Your task to perform on an android device: move a message to another label in the gmail app Image 0: 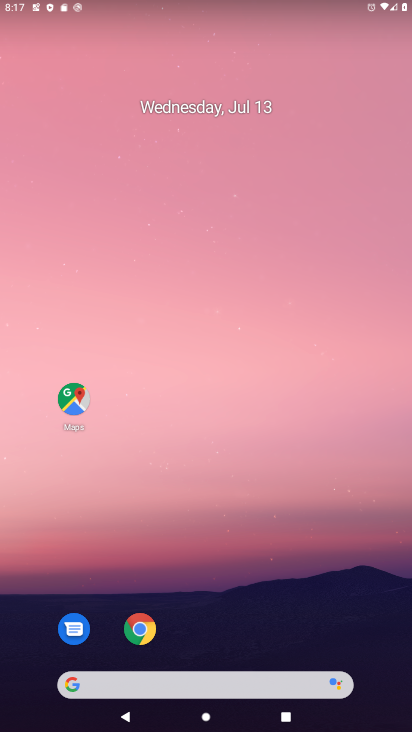
Step 0: drag from (218, 378) to (228, 84)
Your task to perform on an android device: move a message to another label in the gmail app Image 1: 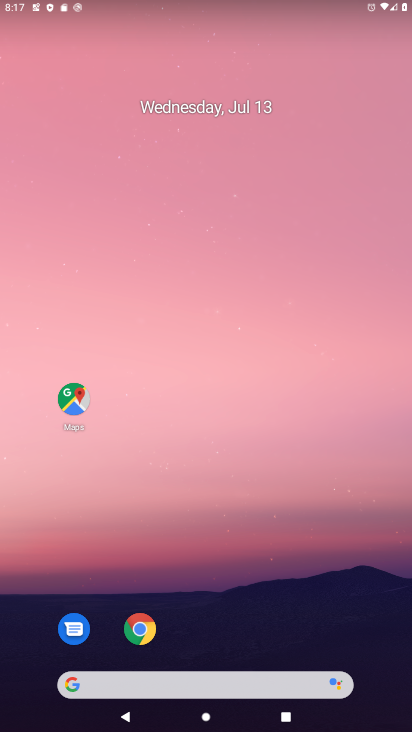
Step 1: drag from (301, 592) to (377, 0)
Your task to perform on an android device: move a message to another label in the gmail app Image 2: 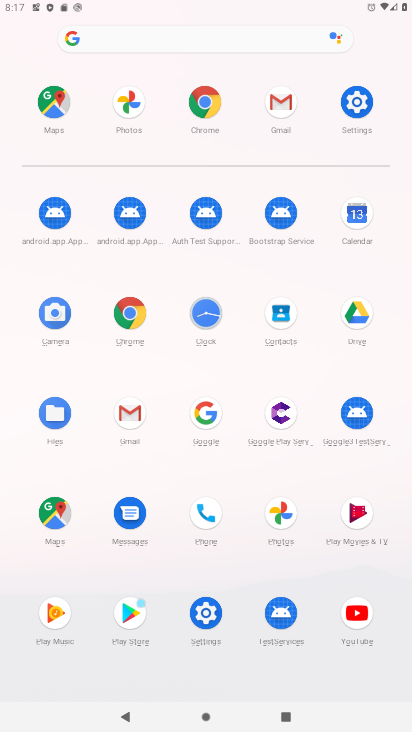
Step 2: click (277, 108)
Your task to perform on an android device: move a message to another label in the gmail app Image 3: 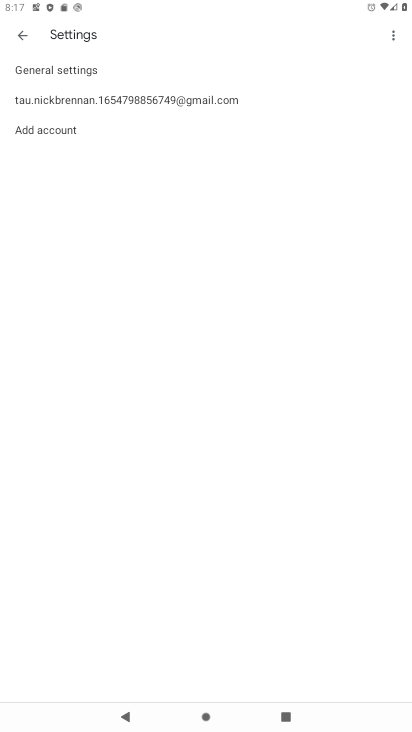
Step 3: click (18, 36)
Your task to perform on an android device: move a message to another label in the gmail app Image 4: 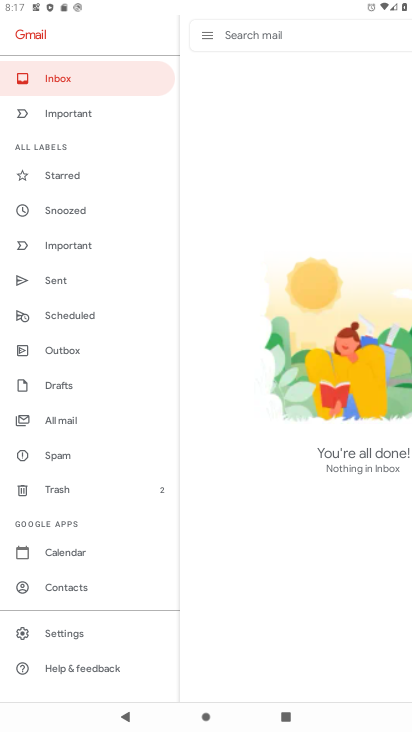
Step 4: task complete